Your task to perform on an android device: Open the calendar and show me this week's events? Image 0: 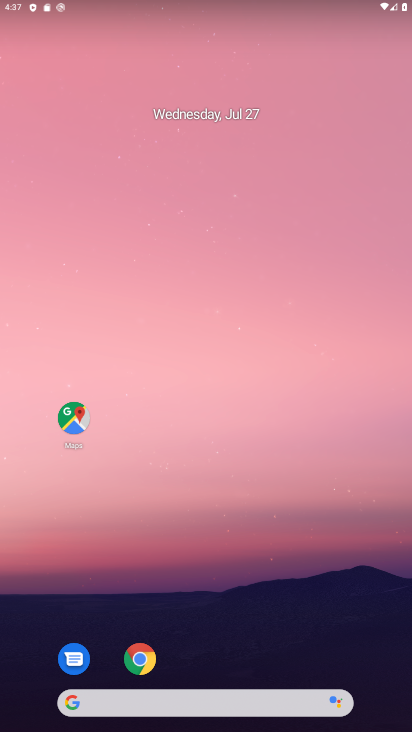
Step 0: drag from (230, 650) to (307, 60)
Your task to perform on an android device: Open the calendar and show me this week's events? Image 1: 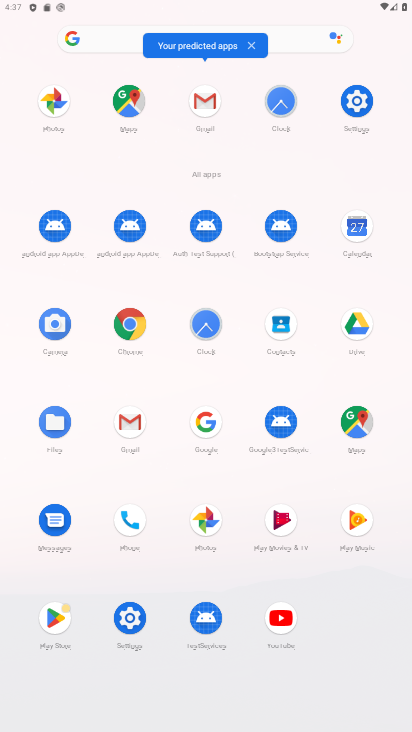
Step 1: click (360, 223)
Your task to perform on an android device: Open the calendar and show me this week's events? Image 2: 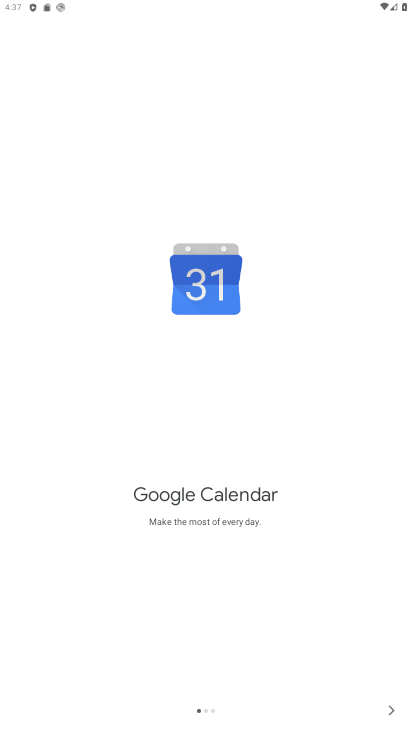
Step 2: click (399, 712)
Your task to perform on an android device: Open the calendar and show me this week's events? Image 3: 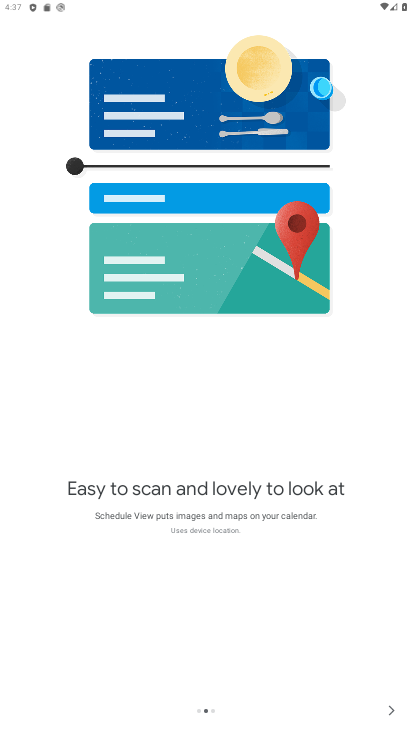
Step 3: click (399, 712)
Your task to perform on an android device: Open the calendar and show me this week's events? Image 4: 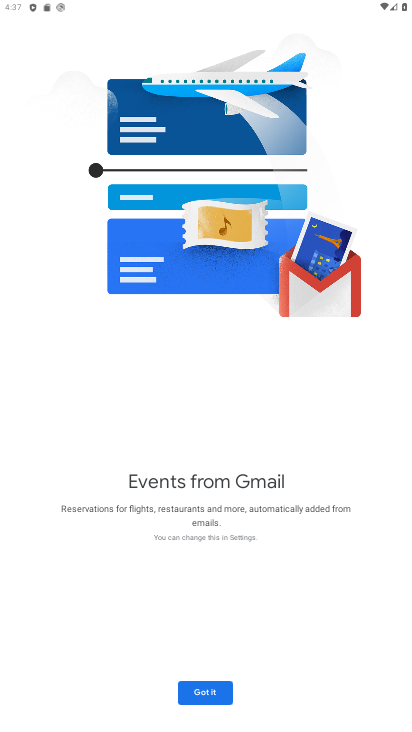
Step 4: click (201, 691)
Your task to perform on an android device: Open the calendar and show me this week's events? Image 5: 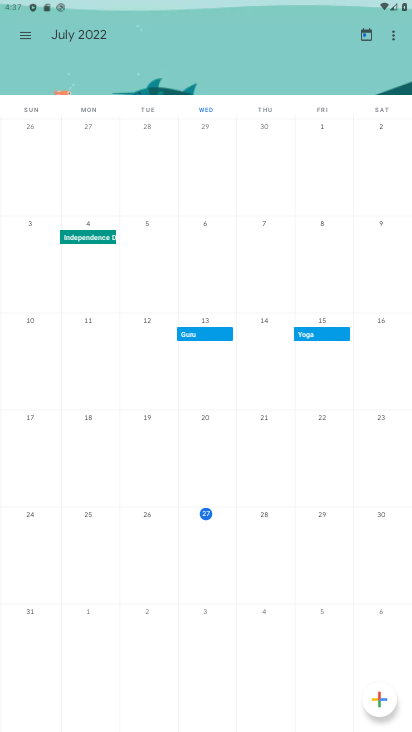
Step 5: click (210, 511)
Your task to perform on an android device: Open the calendar and show me this week's events? Image 6: 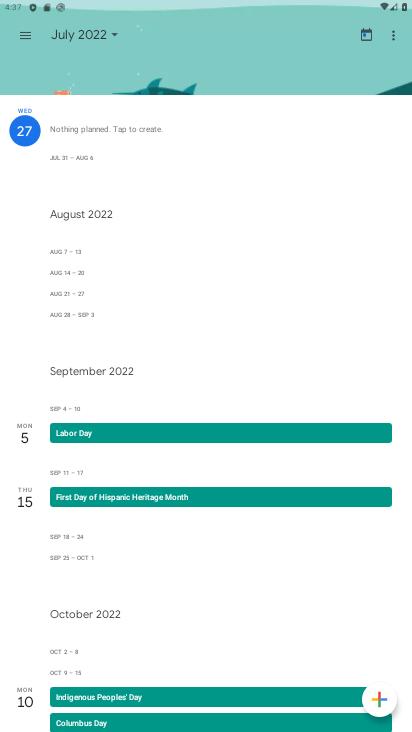
Step 6: task complete